Your task to perform on an android device: Open the map Image 0: 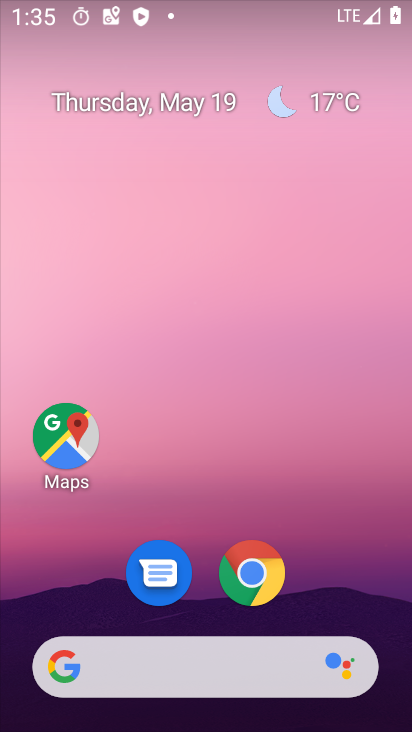
Step 0: click (55, 433)
Your task to perform on an android device: Open the map Image 1: 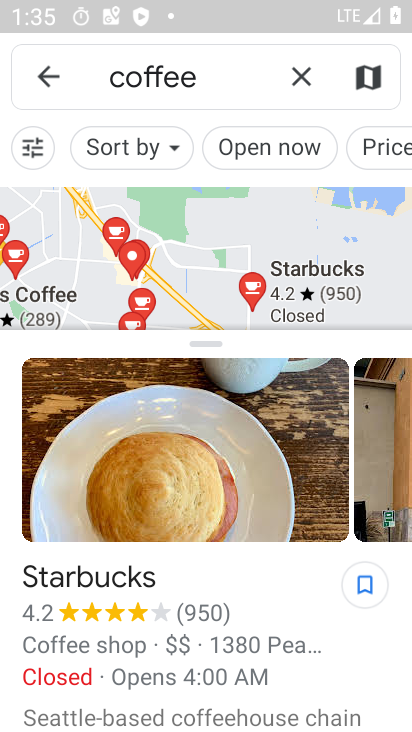
Step 1: task complete